Your task to perform on an android device: Open display settings Image 0: 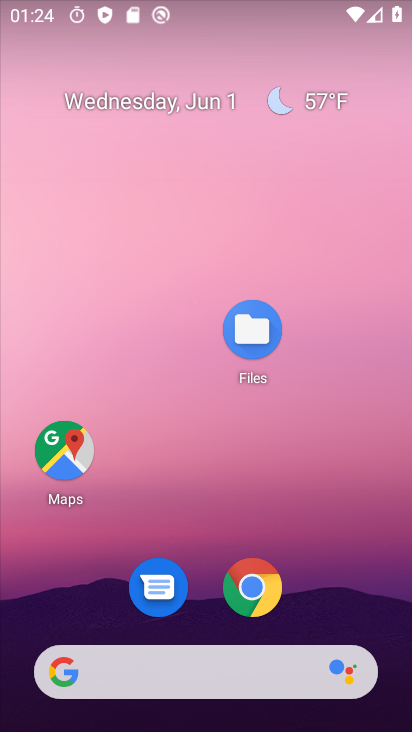
Step 0: drag from (321, 601) to (313, 133)
Your task to perform on an android device: Open display settings Image 1: 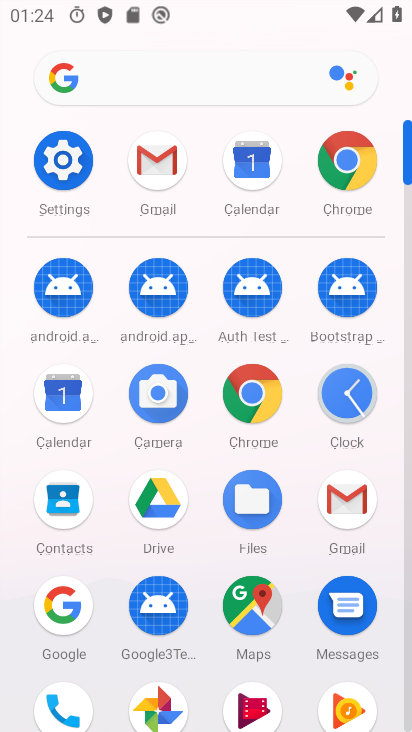
Step 1: click (65, 162)
Your task to perform on an android device: Open display settings Image 2: 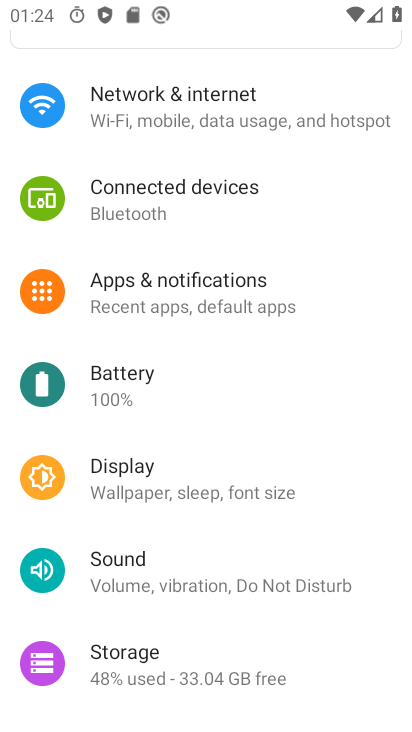
Step 2: click (210, 490)
Your task to perform on an android device: Open display settings Image 3: 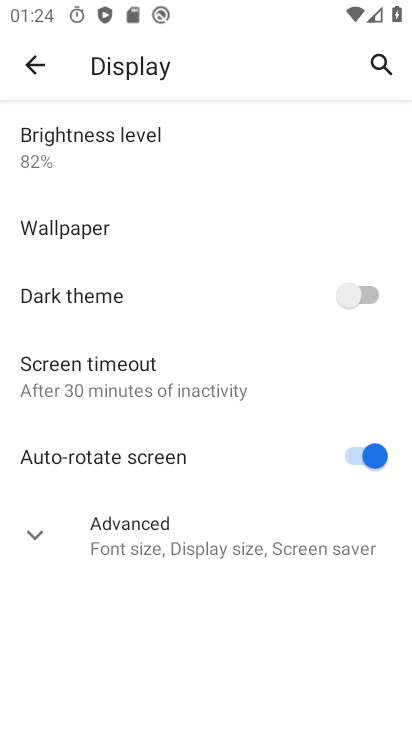
Step 3: task complete